Your task to perform on an android device: change the clock style Image 0: 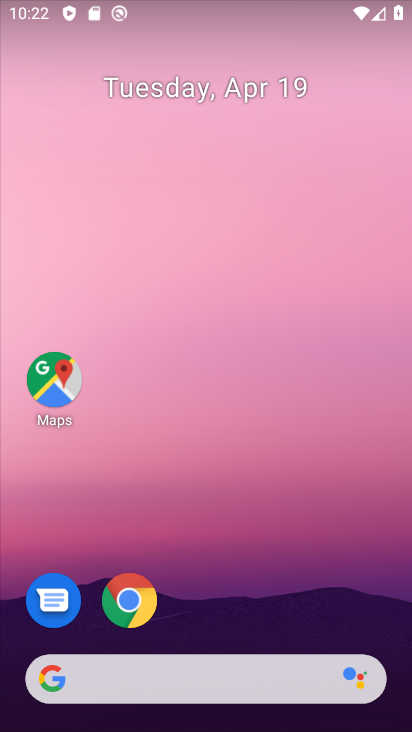
Step 0: drag from (162, 496) to (411, 196)
Your task to perform on an android device: change the clock style Image 1: 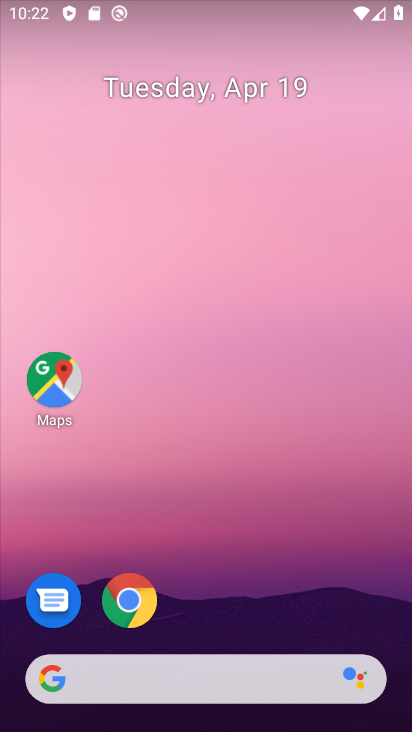
Step 1: drag from (242, 621) to (407, 62)
Your task to perform on an android device: change the clock style Image 2: 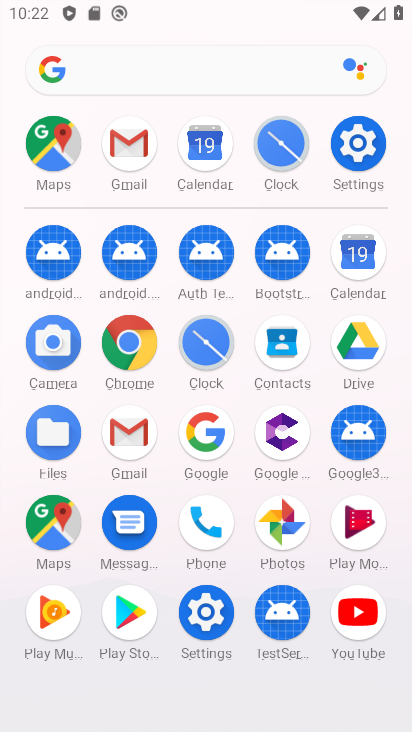
Step 2: click (203, 340)
Your task to perform on an android device: change the clock style Image 3: 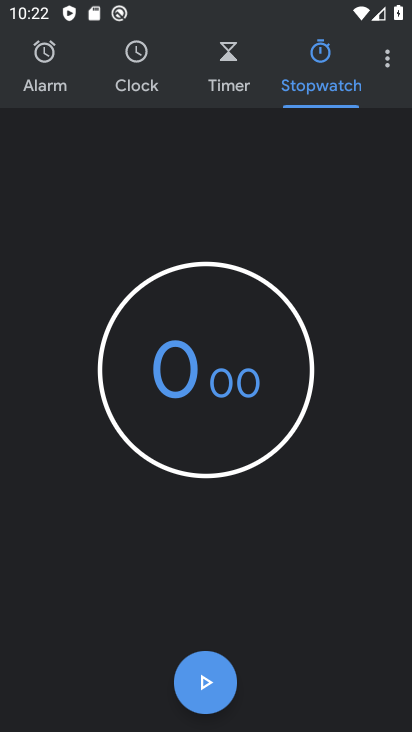
Step 3: click (385, 56)
Your task to perform on an android device: change the clock style Image 4: 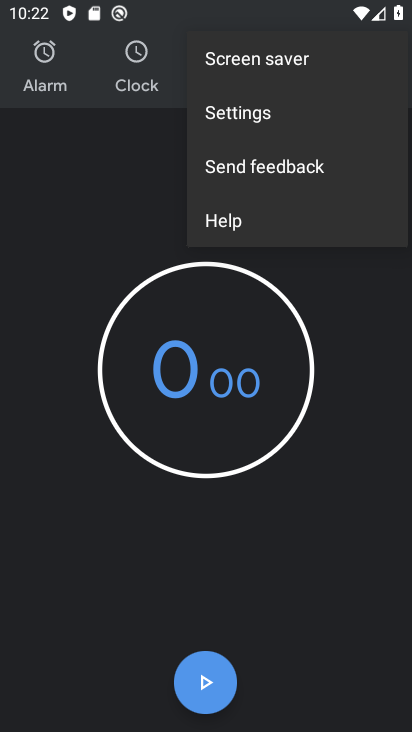
Step 4: click (243, 110)
Your task to perform on an android device: change the clock style Image 5: 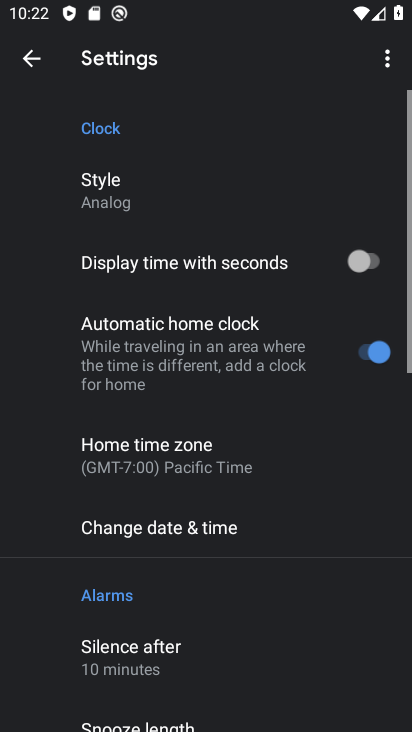
Step 5: click (127, 208)
Your task to perform on an android device: change the clock style Image 6: 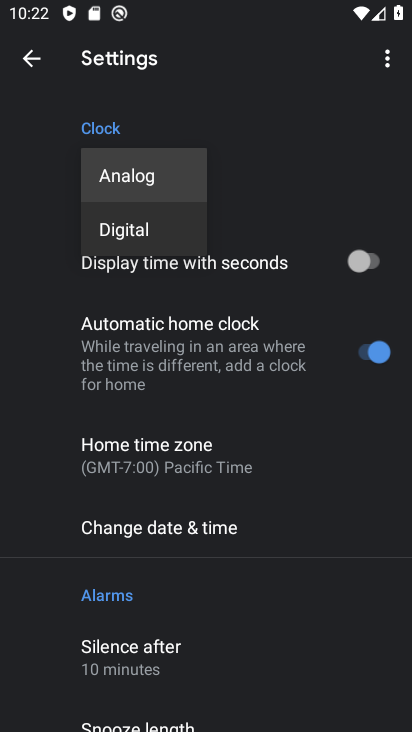
Step 6: click (140, 227)
Your task to perform on an android device: change the clock style Image 7: 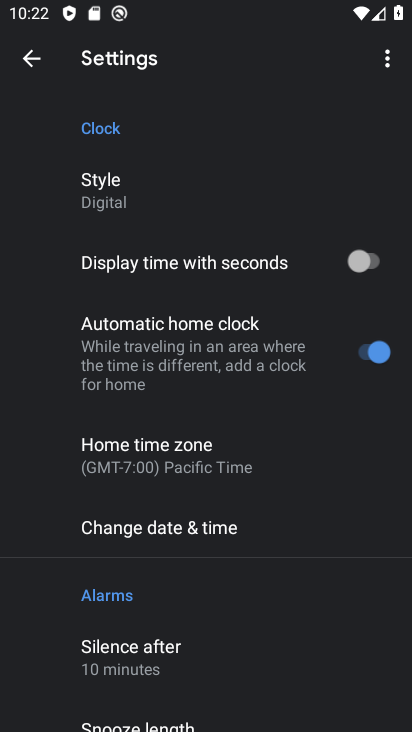
Step 7: task complete